Your task to perform on an android device: turn off javascript in the chrome app Image 0: 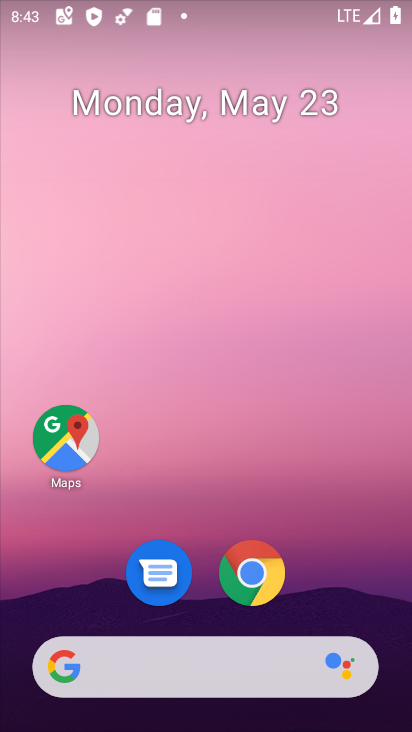
Step 0: click (253, 578)
Your task to perform on an android device: turn off javascript in the chrome app Image 1: 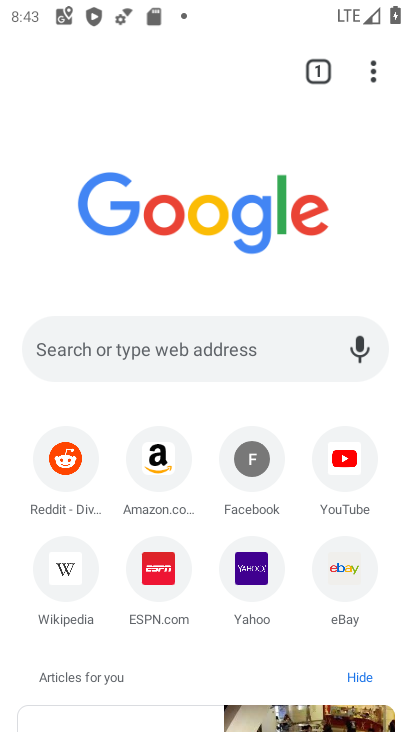
Step 1: click (373, 70)
Your task to perform on an android device: turn off javascript in the chrome app Image 2: 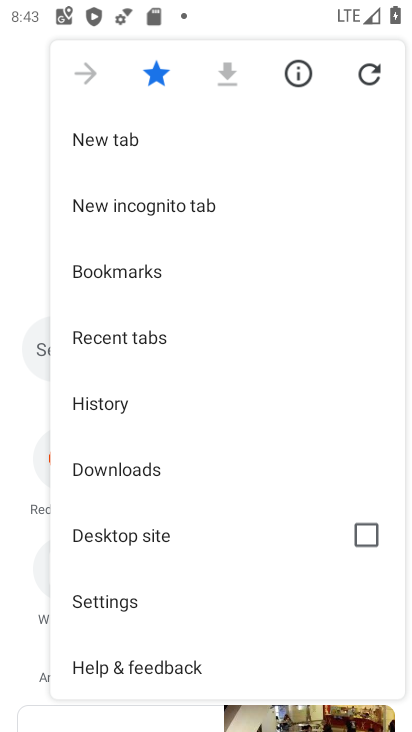
Step 2: click (156, 604)
Your task to perform on an android device: turn off javascript in the chrome app Image 3: 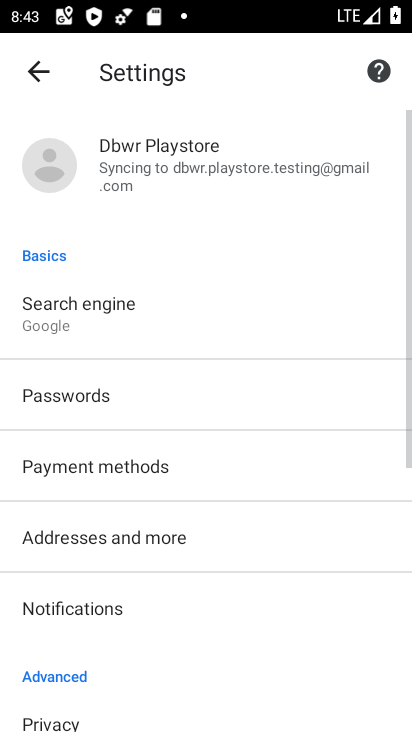
Step 3: drag from (227, 478) to (261, 173)
Your task to perform on an android device: turn off javascript in the chrome app Image 4: 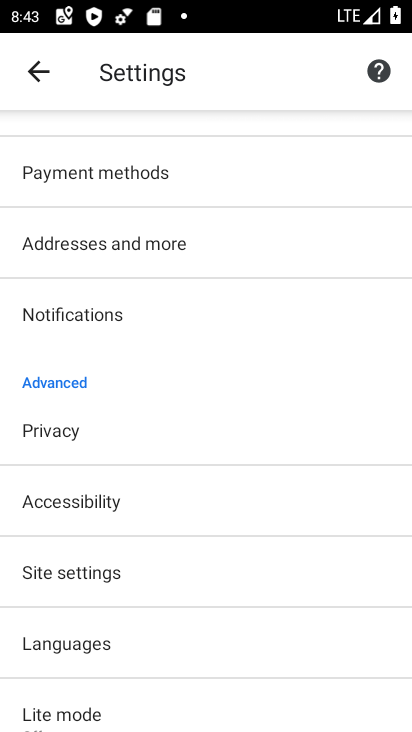
Step 4: click (167, 589)
Your task to perform on an android device: turn off javascript in the chrome app Image 5: 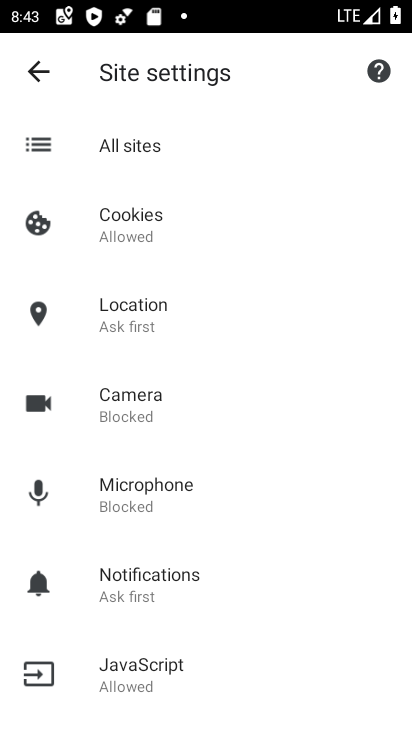
Step 5: click (191, 662)
Your task to perform on an android device: turn off javascript in the chrome app Image 6: 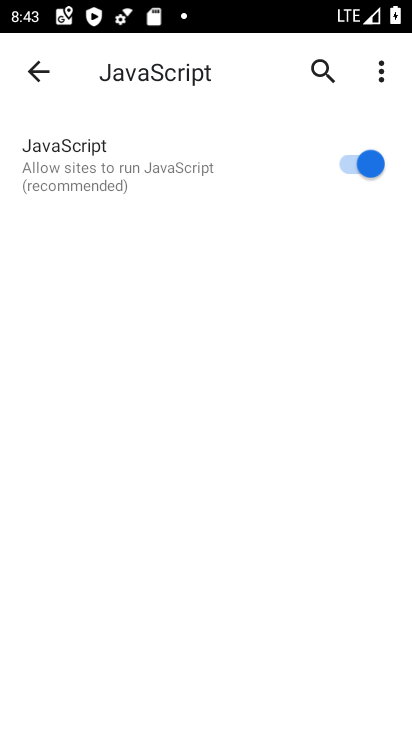
Step 6: click (356, 159)
Your task to perform on an android device: turn off javascript in the chrome app Image 7: 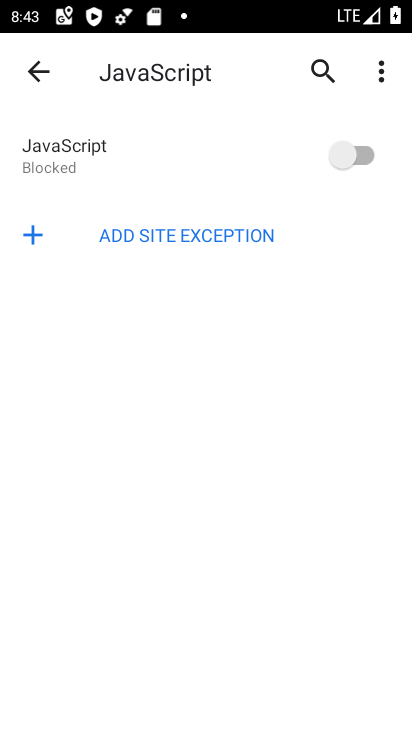
Step 7: task complete